Your task to perform on an android device: Do I have any events this weekend? Image 0: 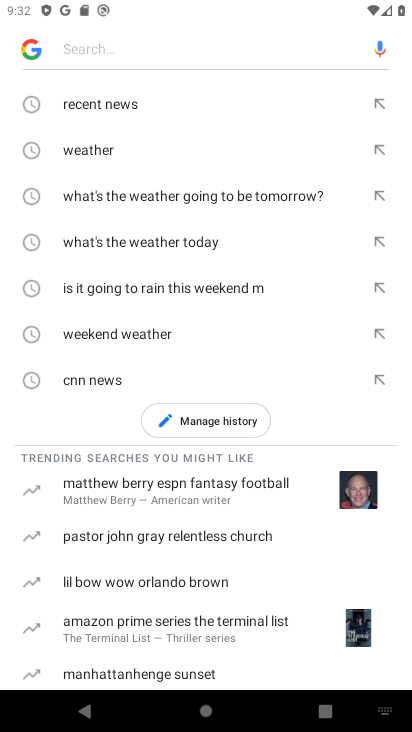
Step 0: press home button
Your task to perform on an android device: Do I have any events this weekend? Image 1: 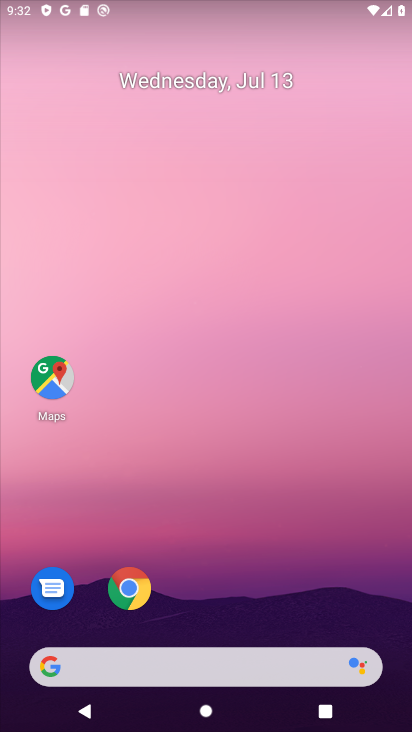
Step 1: drag from (271, 549) to (296, 75)
Your task to perform on an android device: Do I have any events this weekend? Image 2: 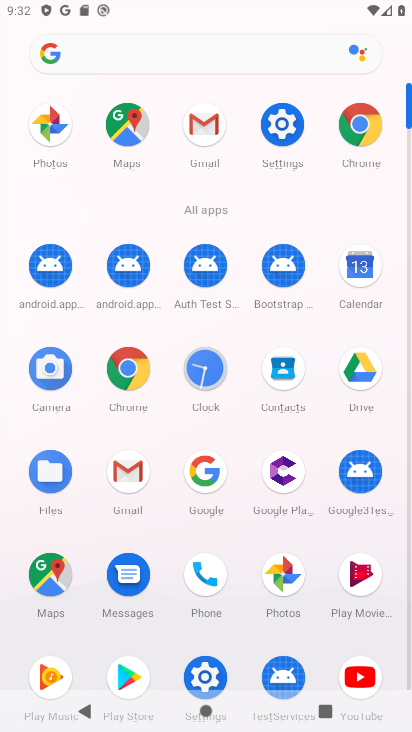
Step 2: click (362, 276)
Your task to perform on an android device: Do I have any events this weekend? Image 3: 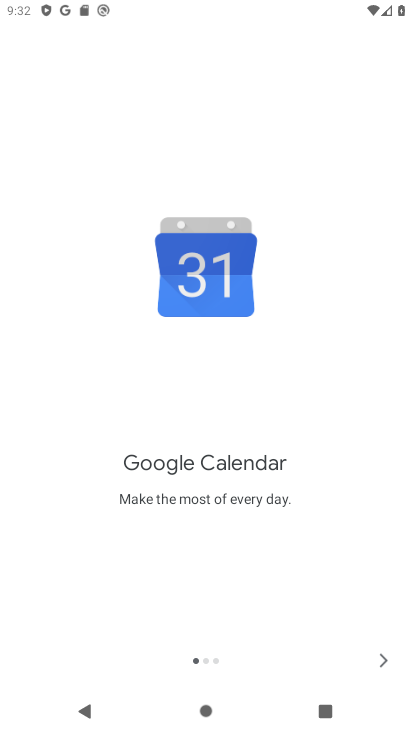
Step 3: click (382, 664)
Your task to perform on an android device: Do I have any events this weekend? Image 4: 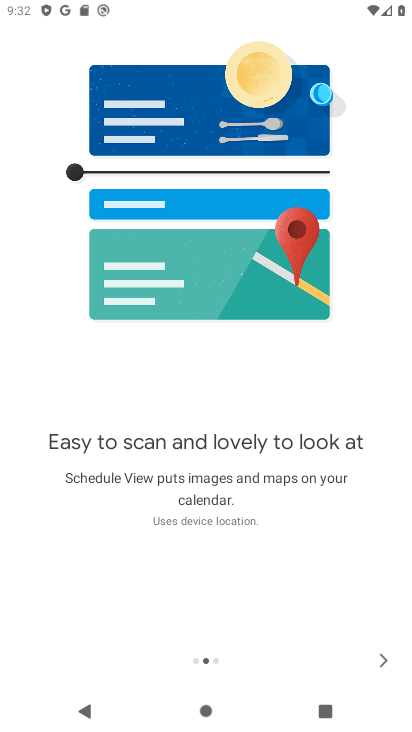
Step 4: click (382, 664)
Your task to perform on an android device: Do I have any events this weekend? Image 5: 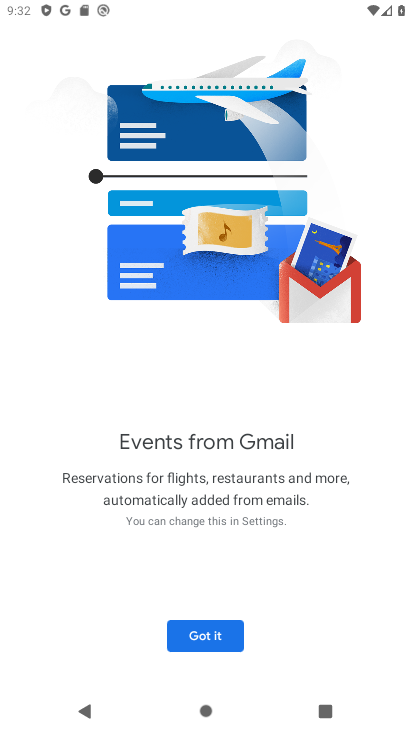
Step 5: click (213, 639)
Your task to perform on an android device: Do I have any events this weekend? Image 6: 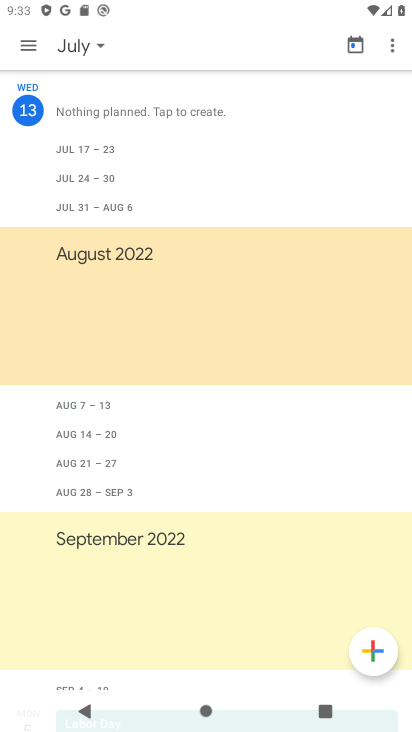
Step 6: click (94, 49)
Your task to perform on an android device: Do I have any events this weekend? Image 7: 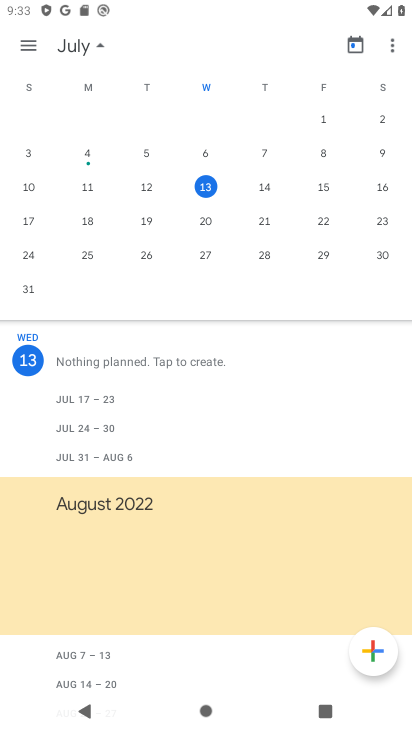
Step 7: click (319, 185)
Your task to perform on an android device: Do I have any events this weekend? Image 8: 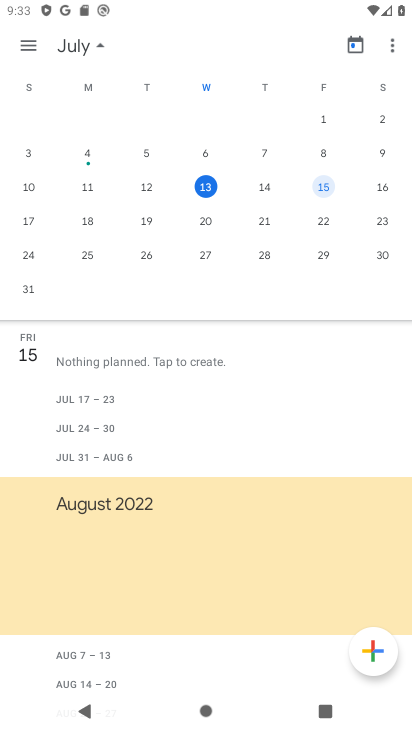
Step 8: task complete